Your task to perform on an android device: open wifi settings Image 0: 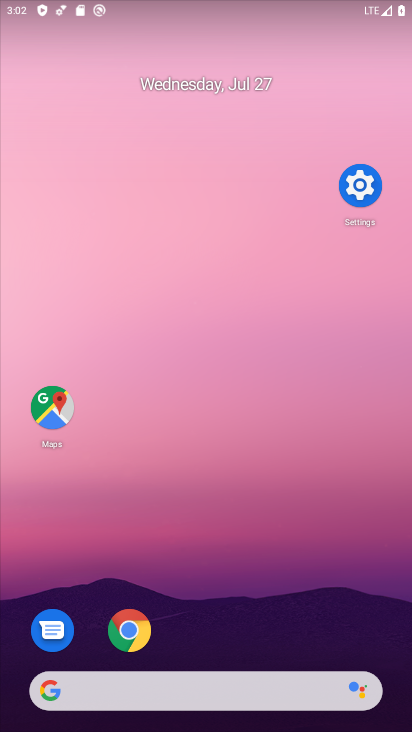
Step 0: press home button
Your task to perform on an android device: open wifi settings Image 1: 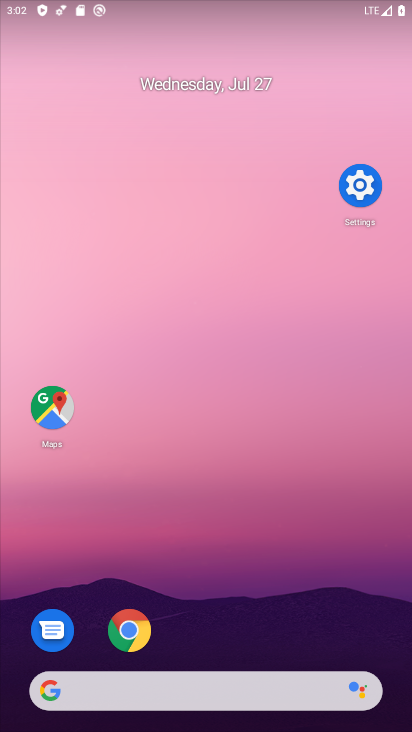
Step 1: drag from (236, 649) to (282, 151)
Your task to perform on an android device: open wifi settings Image 2: 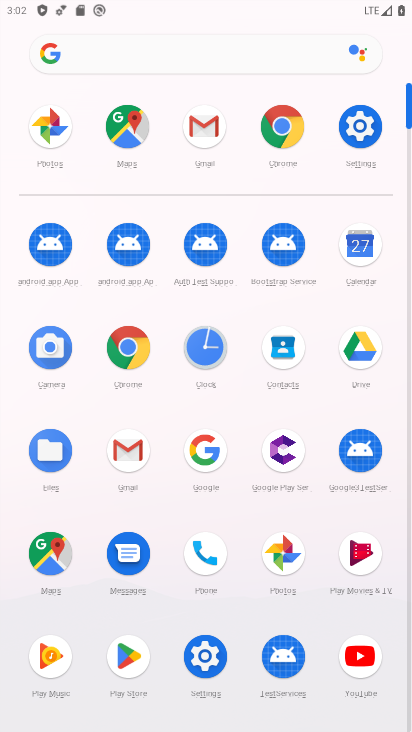
Step 2: click (360, 126)
Your task to perform on an android device: open wifi settings Image 3: 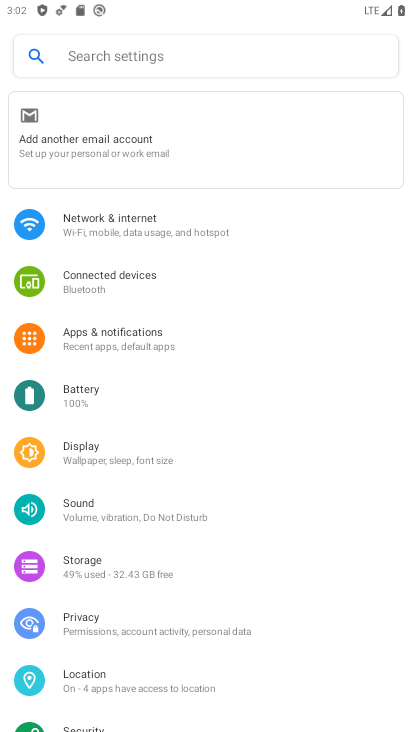
Step 3: click (114, 227)
Your task to perform on an android device: open wifi settings Image 4: 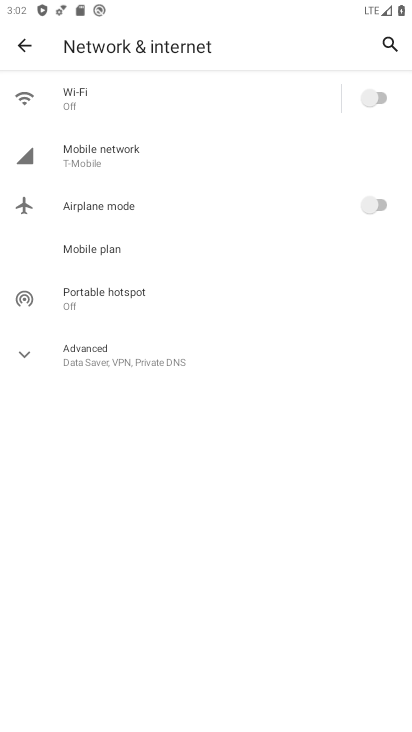
Step 4: click (74, 100)
Your task to perform on an android device: open wifi settings Image 5: 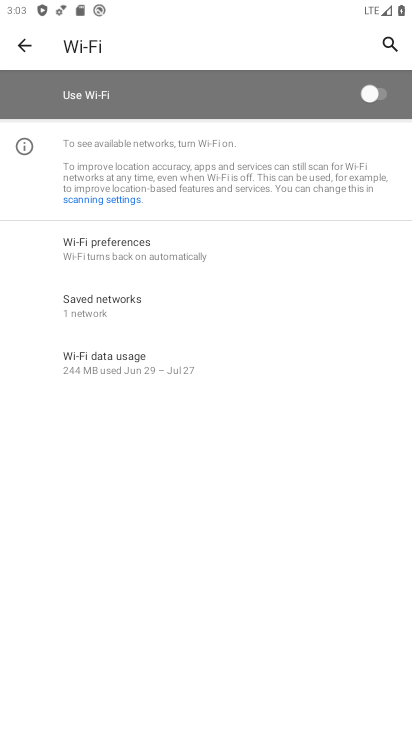
Step 5: click (379, 92)
Your task to perform on an android device: open wifi settings Image 6: 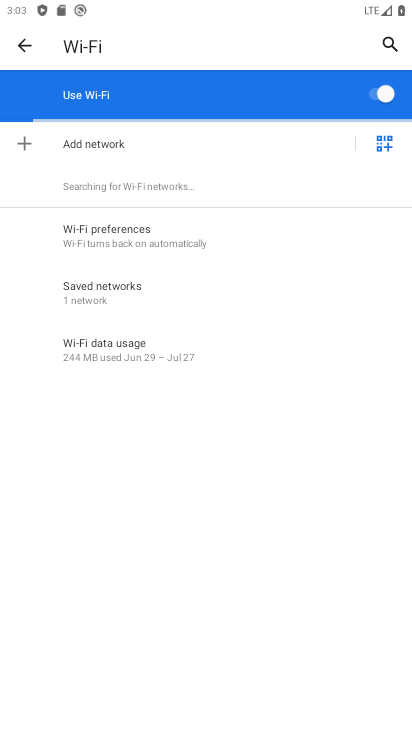
Step 6: task complete